Your task to perform on an android device: Go to location settings Image 0: 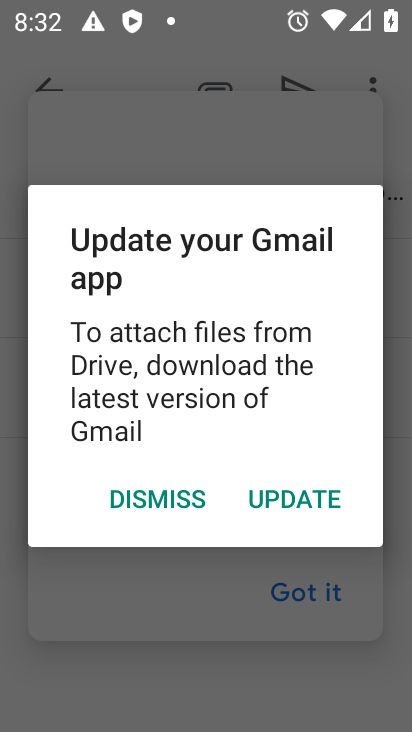
Step 0: press home button
Your task to perform on an android device: Go to location settings Image 1: 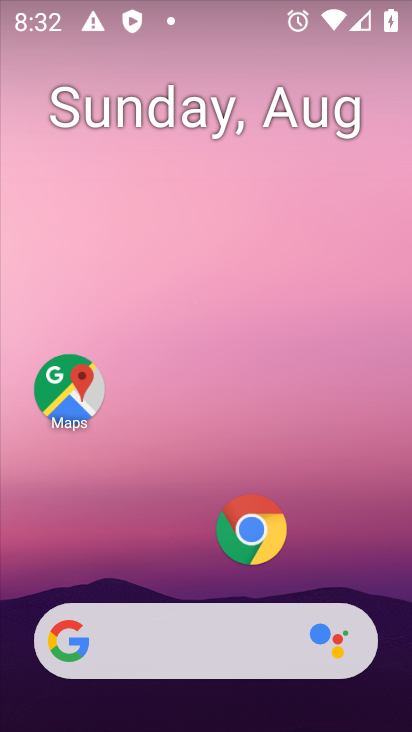
Step 1: drag from (162, 571) to (219, 9)
Your task to perform on an android device: Go to location settings Image 2: 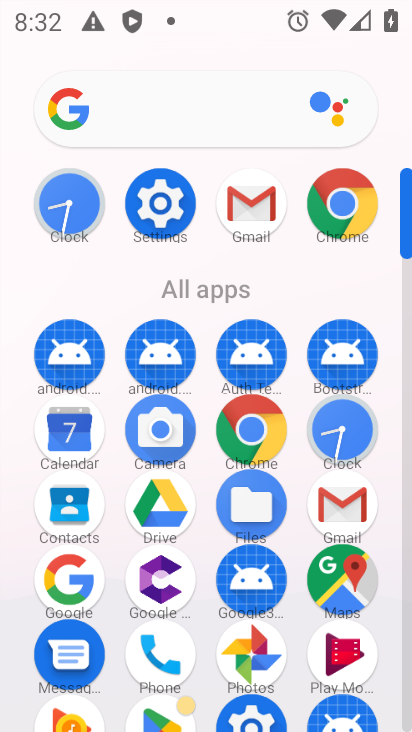
Step 2: click (159, 226)
Your task to perform on an android device: Go to location settings Image 3: 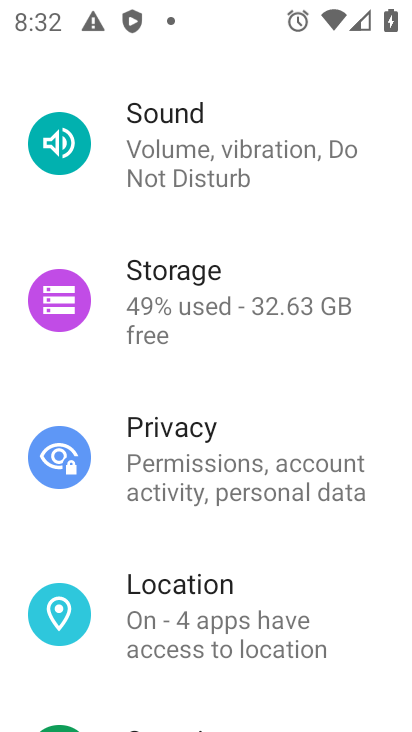
Step 3: click (187, 604)
Your task to perform on an android device: Go to location settings Image 4: 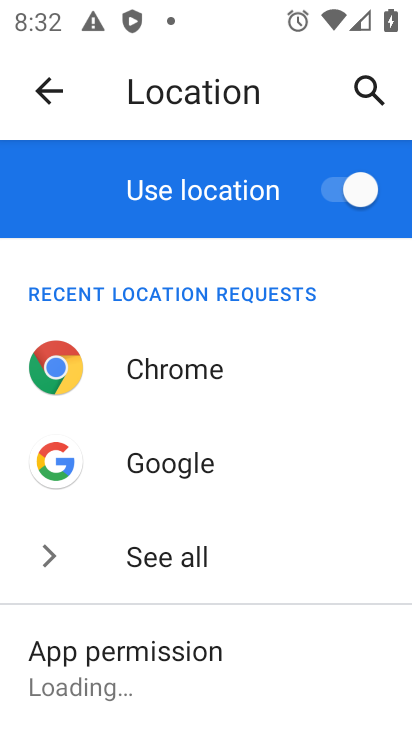
Step 4: task complete